Your task to perform on an android device: What's the weather going to be tomorrow? Image 0: 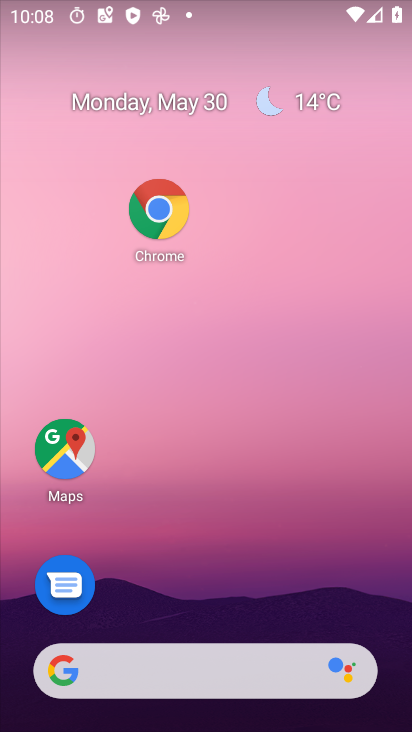
Step 0: drag from (239, 517) to (306, 3)
Your task to perform on an android device: What's the weather going to be tomorrow? Image 1: 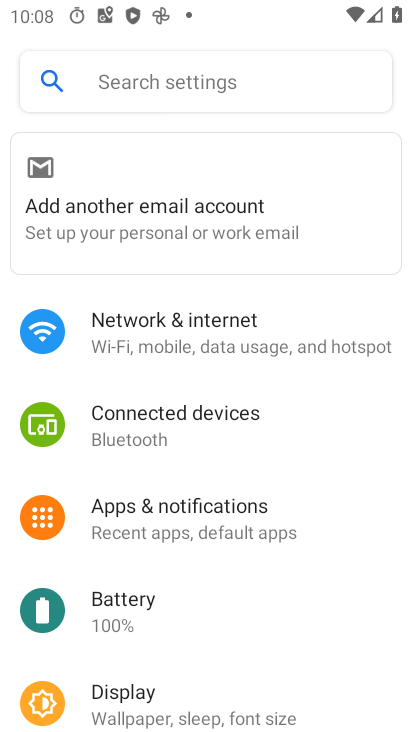
Step 1: press home button
Your task to perform on an android device: What's the weather going to be tomorrow? Image 2: 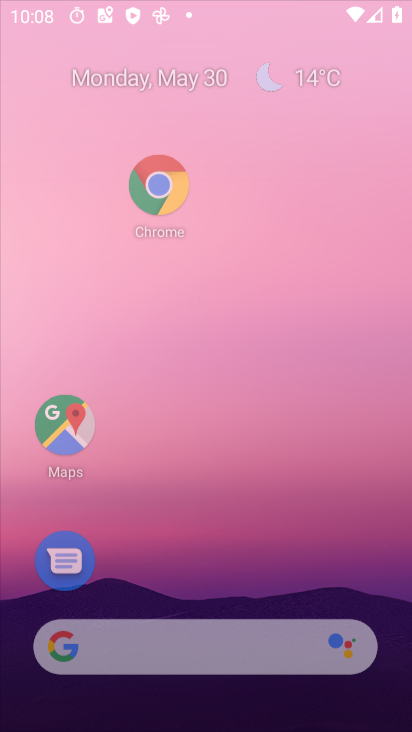
Step 2: drag from (168, 564) to (224, 0)
Your task to perform on an android device: What's the weather going to be tomorrow? Image 3: 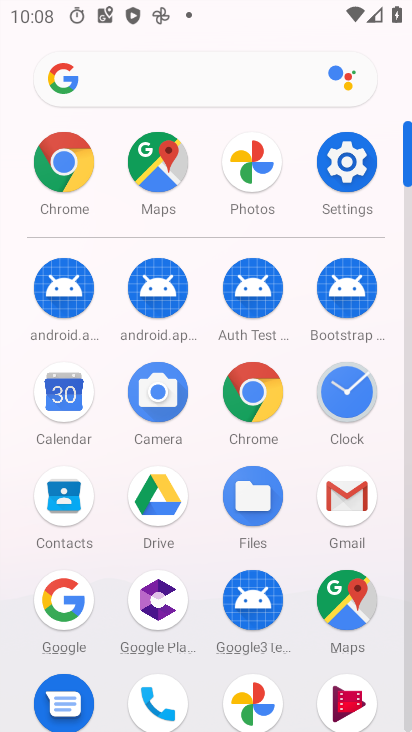
Step 3: click (164, 122)
Your task to perform on an android device: What's the weather going to be tomorrow? Image 4: 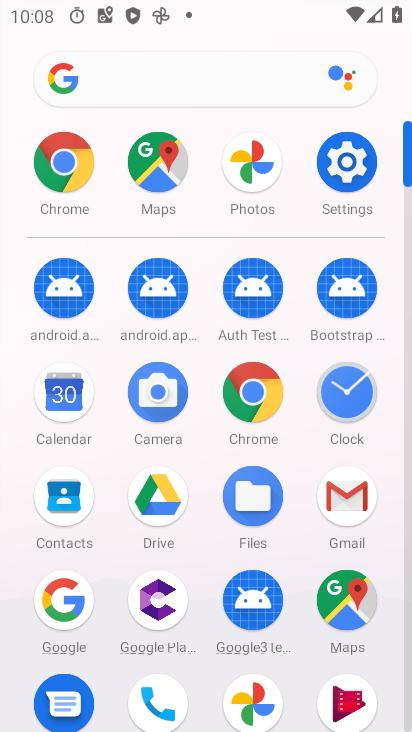
Step 4: click (124, 81)
Your task to perform on an android device: What's the weather going to be tomorrow? Image 5: 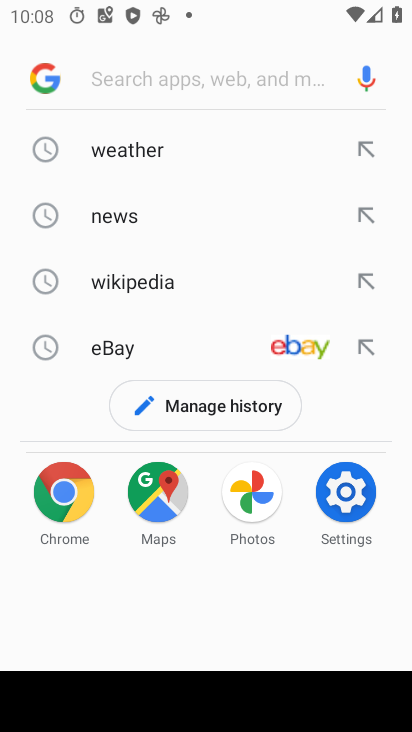
Step 5: type "weather tomorrow"
Your task to perform on an android device: What's the weather going to be tomorrow? Image 6: 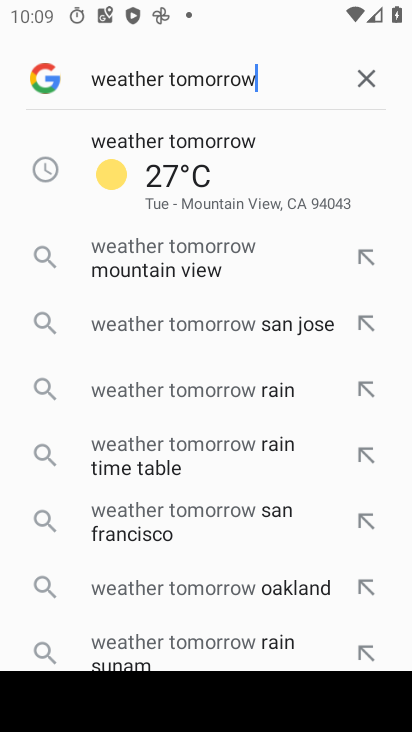
Step 6: click (77, 159)
Your task to perform on an android device: What's the weather going to be tomorrow? Image 7: 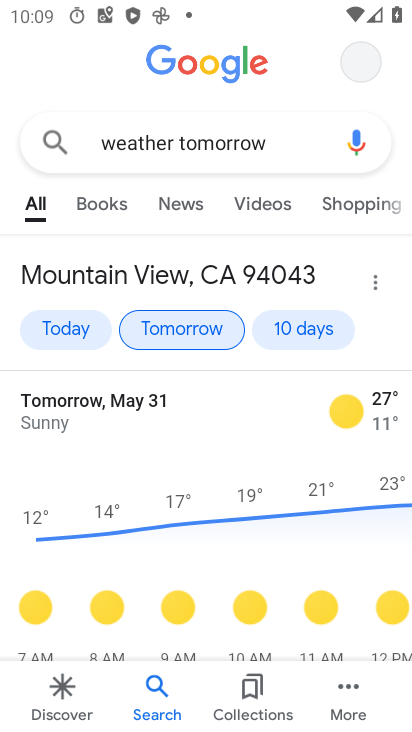
Step 7: task complete